Your task to perform on an android device: change notifications settings Image 0: 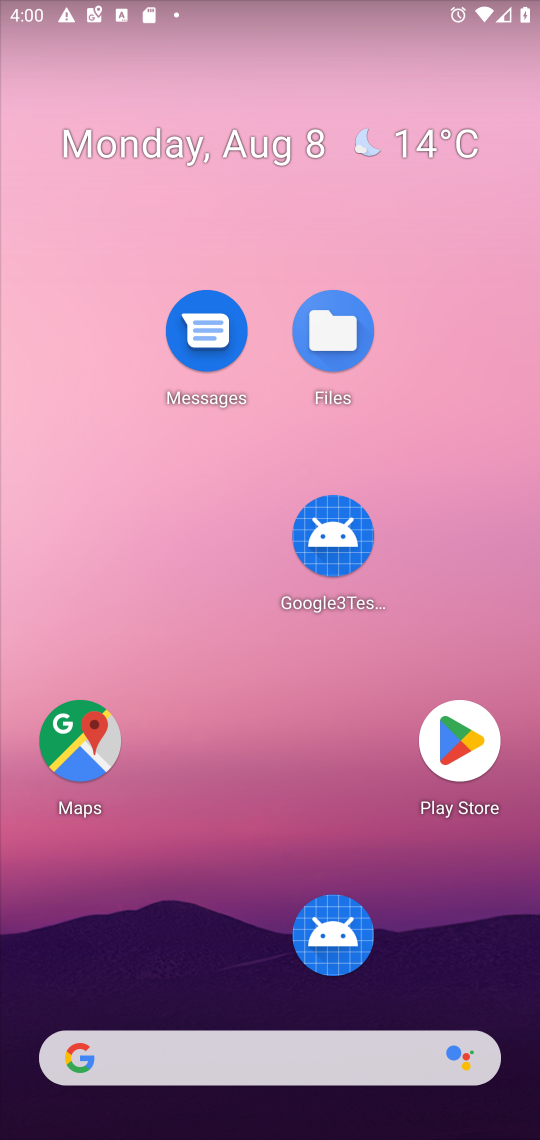
Step 0: drag from (162, 1044) to (143, 162)
Your task to perform on an android device: change notifications settings Image 1: 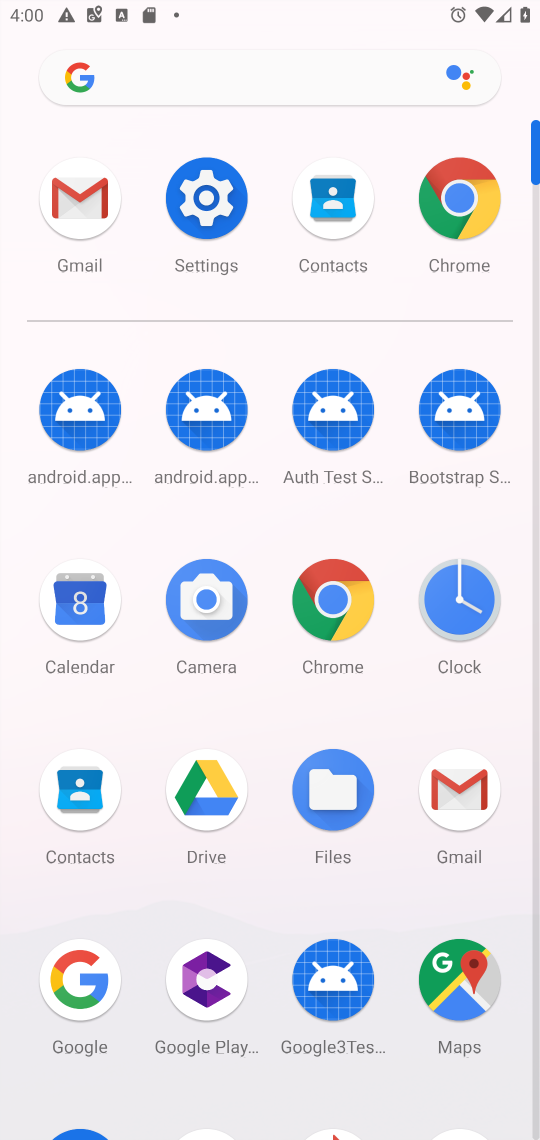
Step 1: click (215, 182)
Your task to perform on an android device: change notifications settings Image 2: 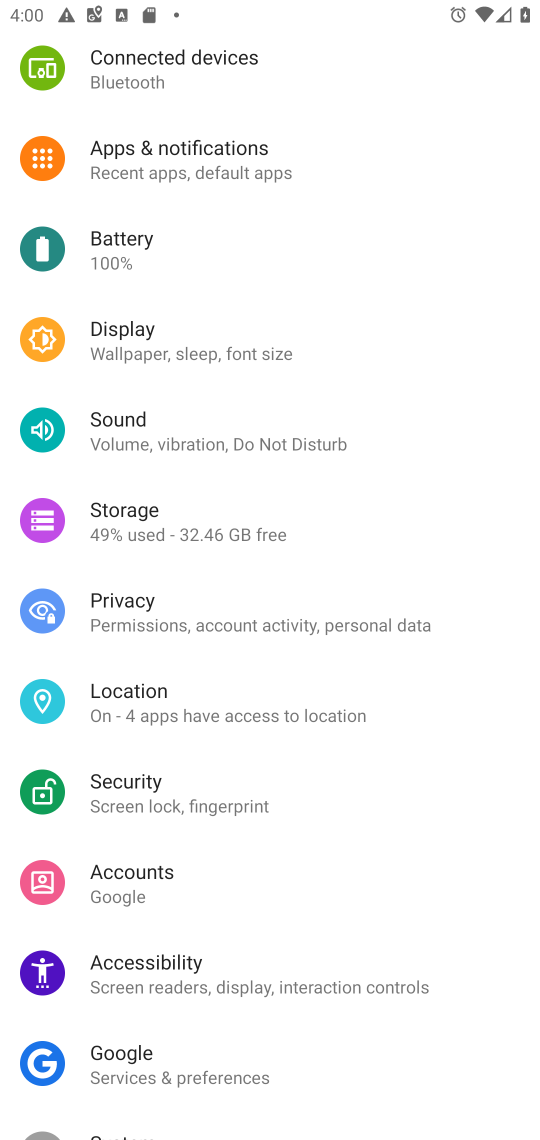
Step 2: click (209, 145)
Your task to perform on an android device: change notifications settings Image 3: 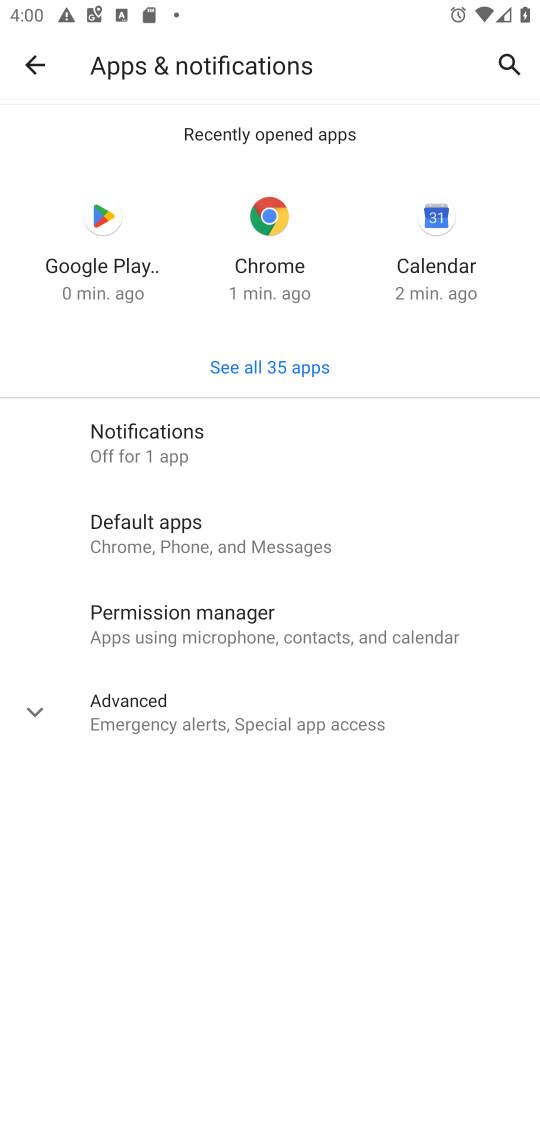
Step 3: click (138, 448)
Your task to perform on an android device: change notifications settings Image 4: 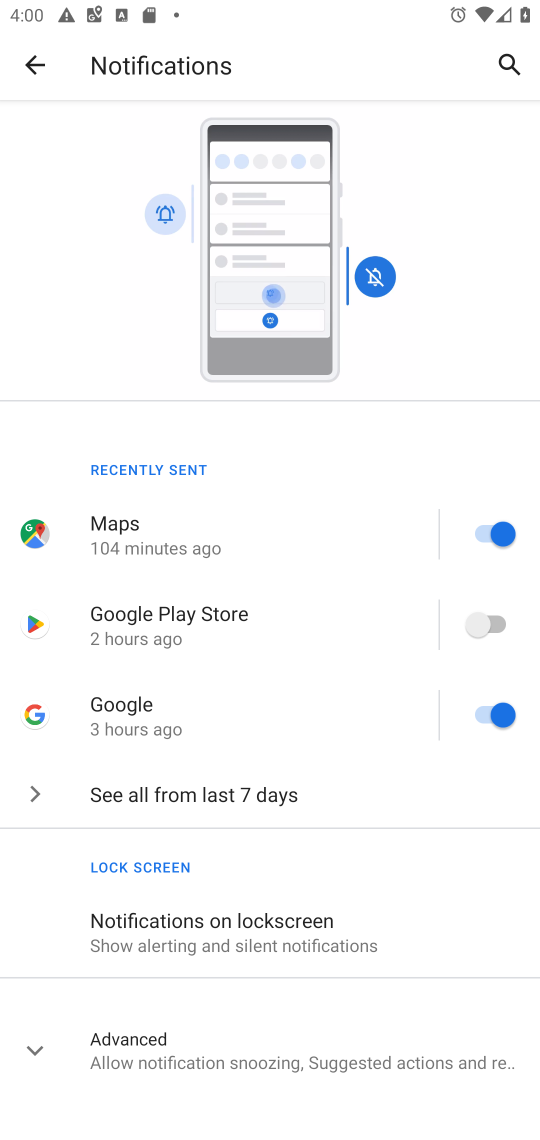
Step 4: click (487, 712)
Your task to perform on an android device: change notifications settings Image 5: 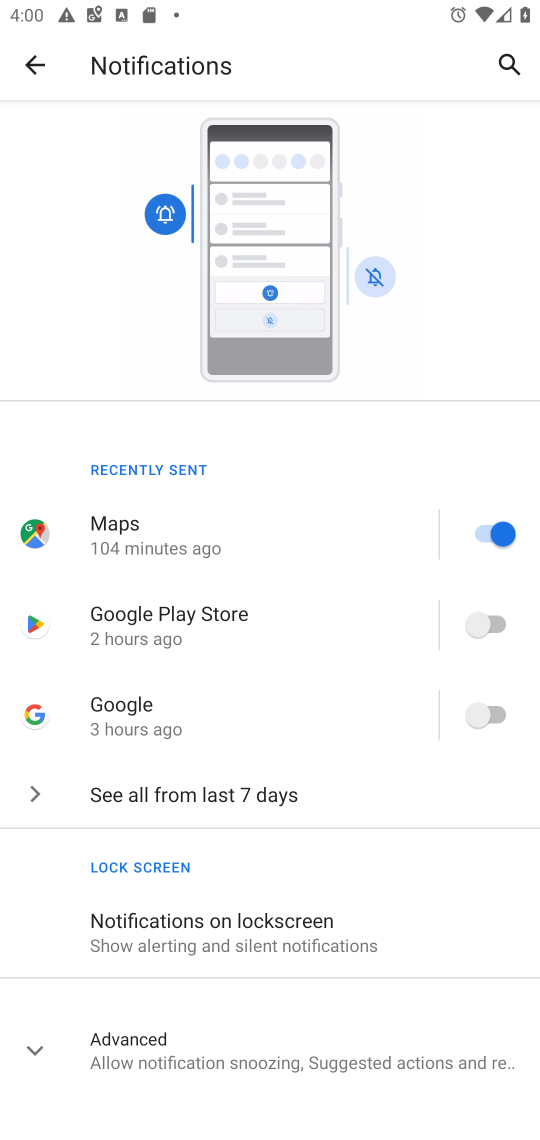
Step 5: task complete